Your task to perform on an android device: turn notification dots on Image 0: 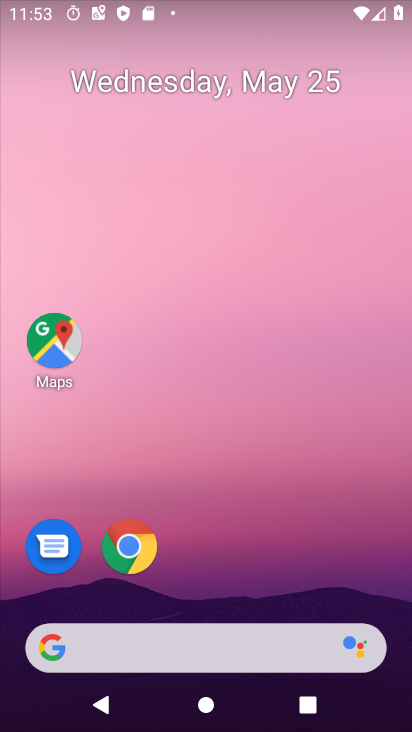
Step 0: drag from (223, 581) to (283, 0)
Your task to perform on an android device: turn notification dots on Image 1: 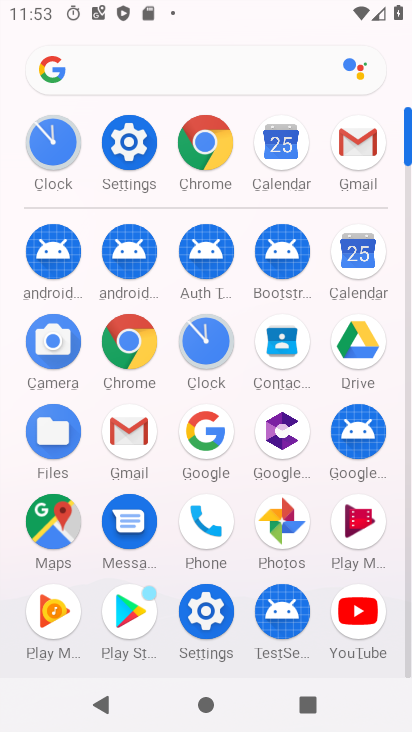
Step 1: click (122, 148)
Your task to perform on an android device: turn notification dots on Image 2: 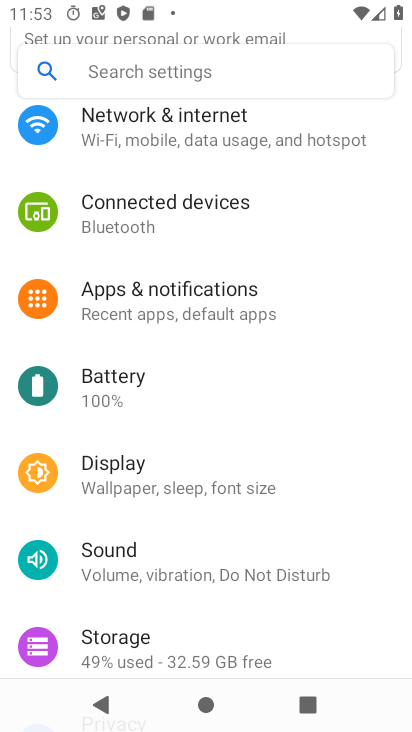
Step 2: click (144, 315)
Your task to perform on an android device: turn notification dots on Image 3: 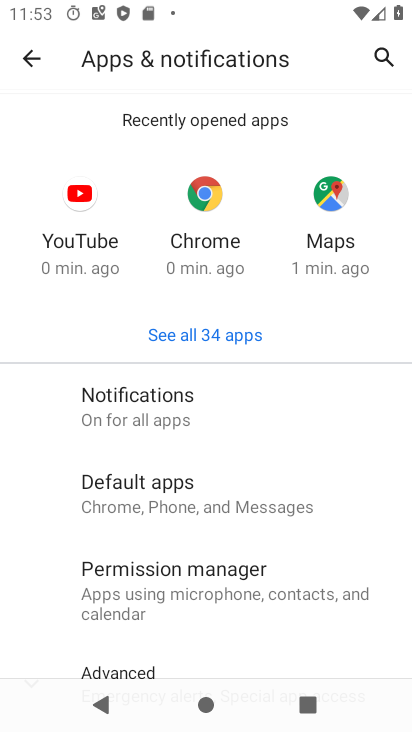
Step 3: click (136, 423)
Your task to perform on an android device: turn notification dots on Image 4: 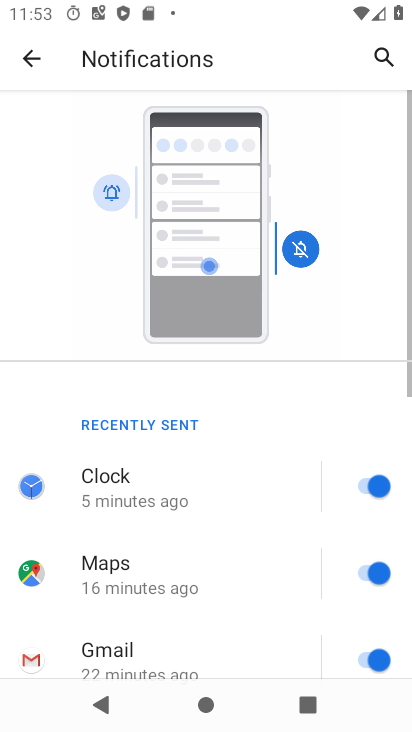
Step 4: drag from (180, 537) to (249, 127)
Your task to perform on an android device: turn notification dots on Image 5: 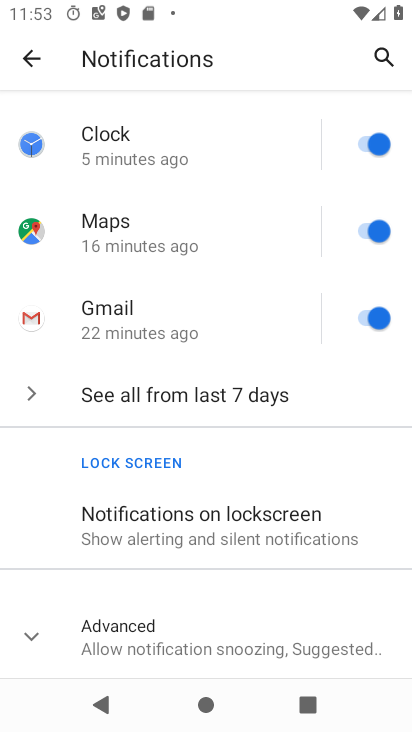
Step 5: click (203, 641)
Your task to perform on an android device: turn notification dots on Image 6: 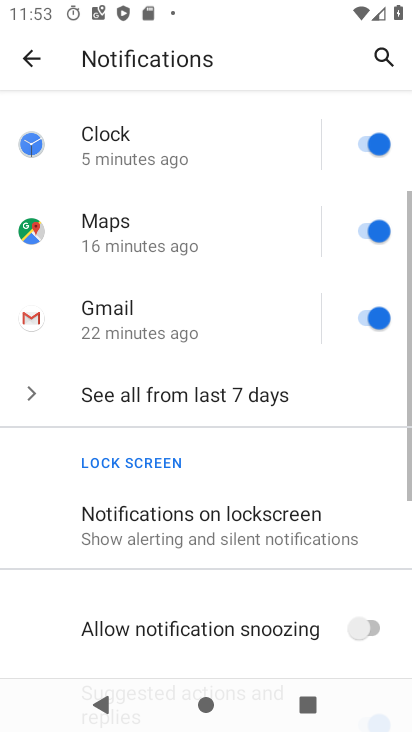
Step 6: task complete